Your task to perform on an android device: see tabs open on other devices in the chrome app Image 0: 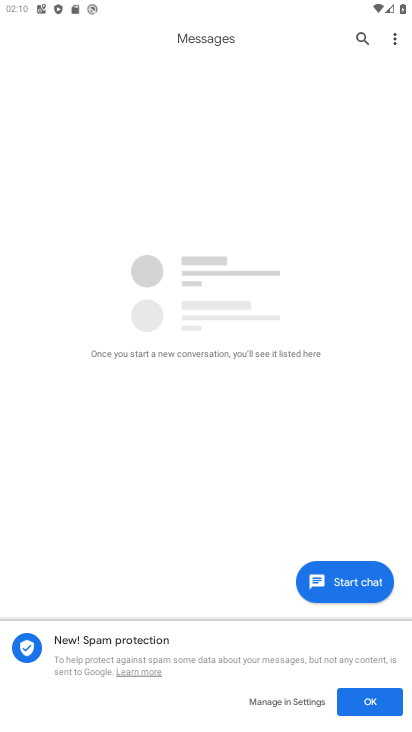
Step 0: press home button
Your task to perform on an android device: see tabs open on other devices in the chrome app Image 1: 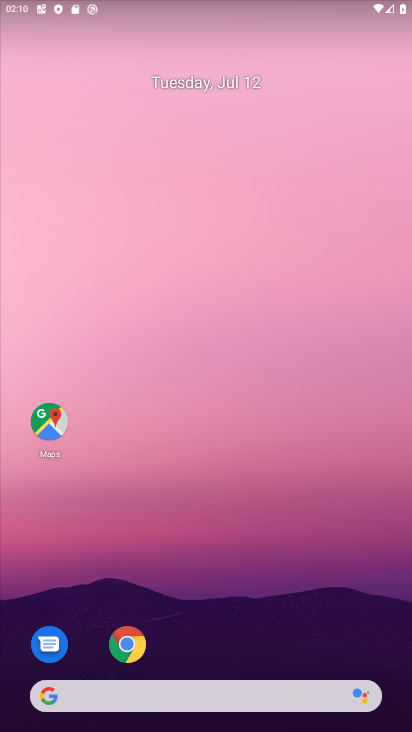
Step 1: drag from (217, 674) to (155, 145)
Your task to perform on an android device: see tabs open on other devices in the chrome app Image 2: 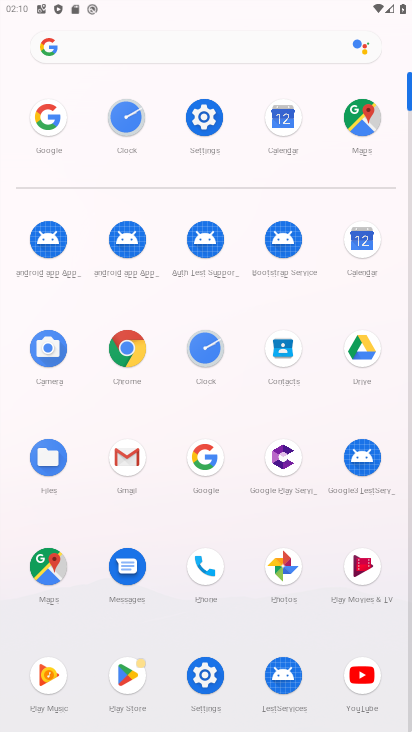
Step 2: click (136, 359)
Your task to perform on an android device: see tabs open on other devices in the chrome app Image 3: 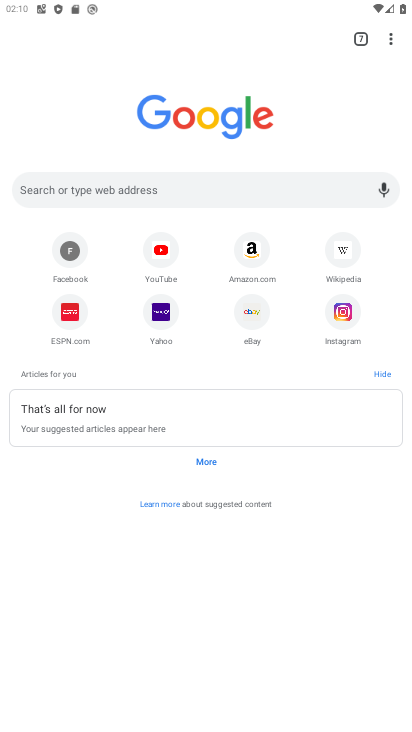
Step 3: click (357, 42)
Your task to perform on an android device: see tabs open on other devices in the chrome app Image 4: 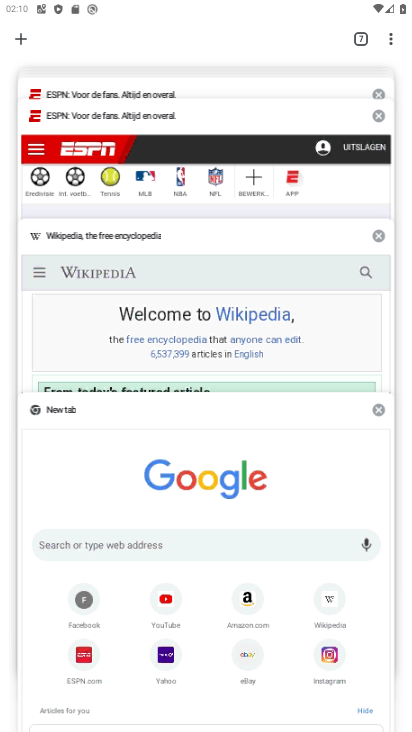
Step 4: task complete